Your task to perform on an android device: Show me popular games on the Play Store Image 0: 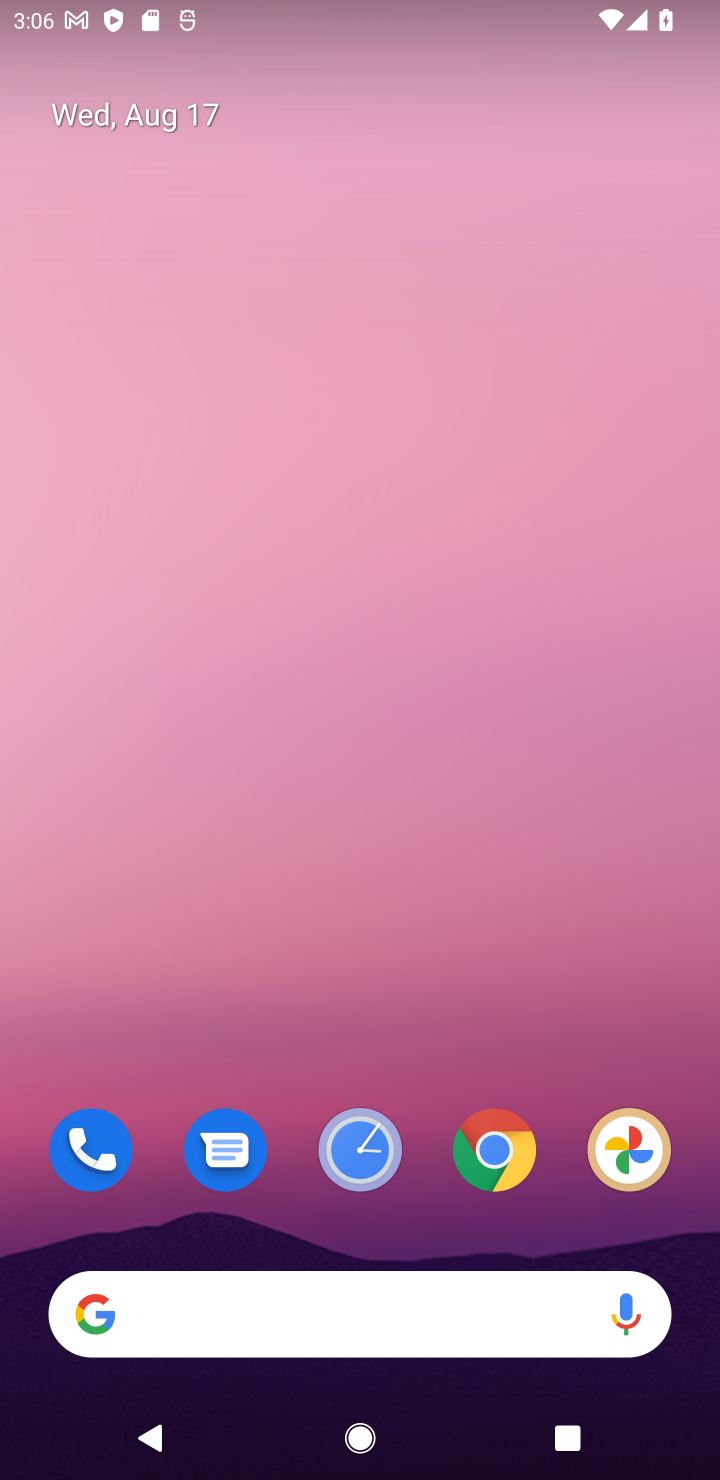
Step 0: drag from (555, 1087) to (181, 83)
Your task to perform on an android device: Show me popular games on the Play Store Image 1: 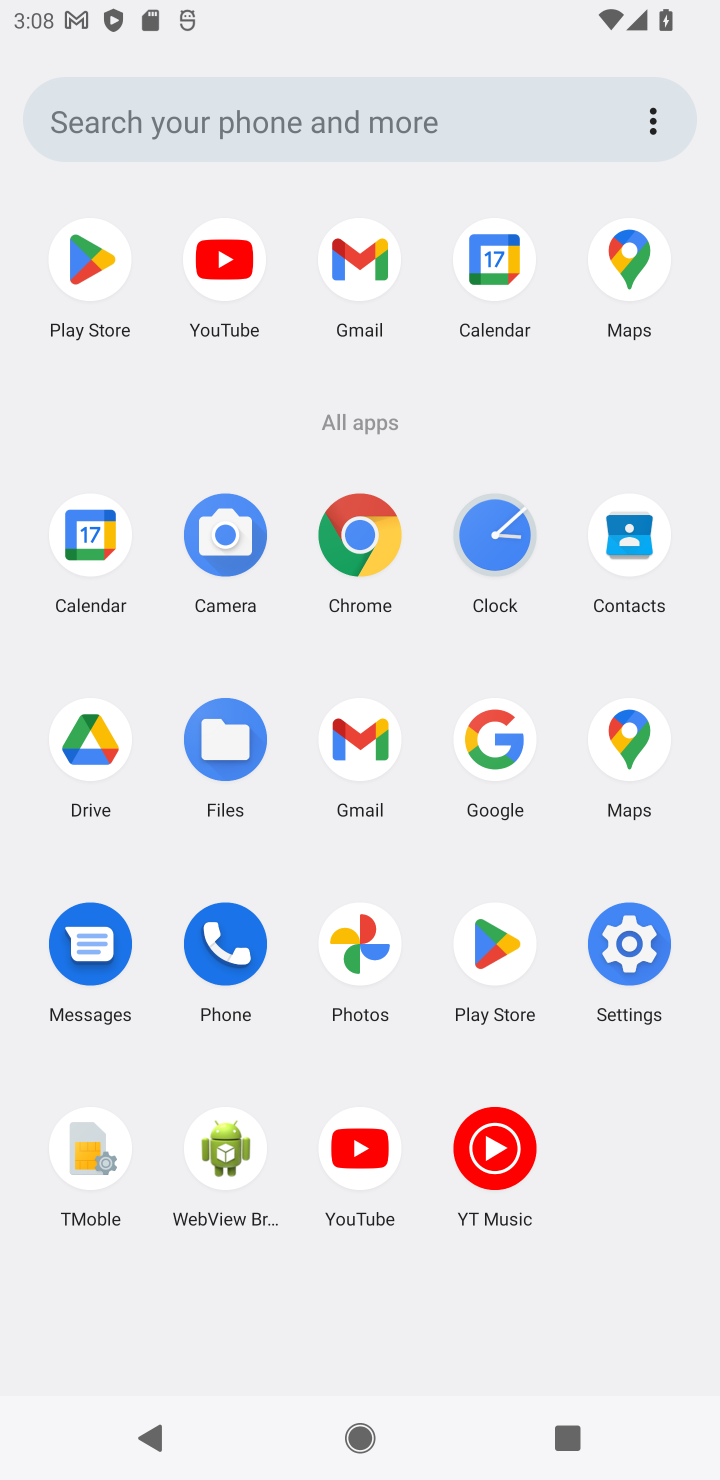
Step 1: click (521, 925)
Your task to perform on an android device: Show me popular games on the Play Store Image 2: 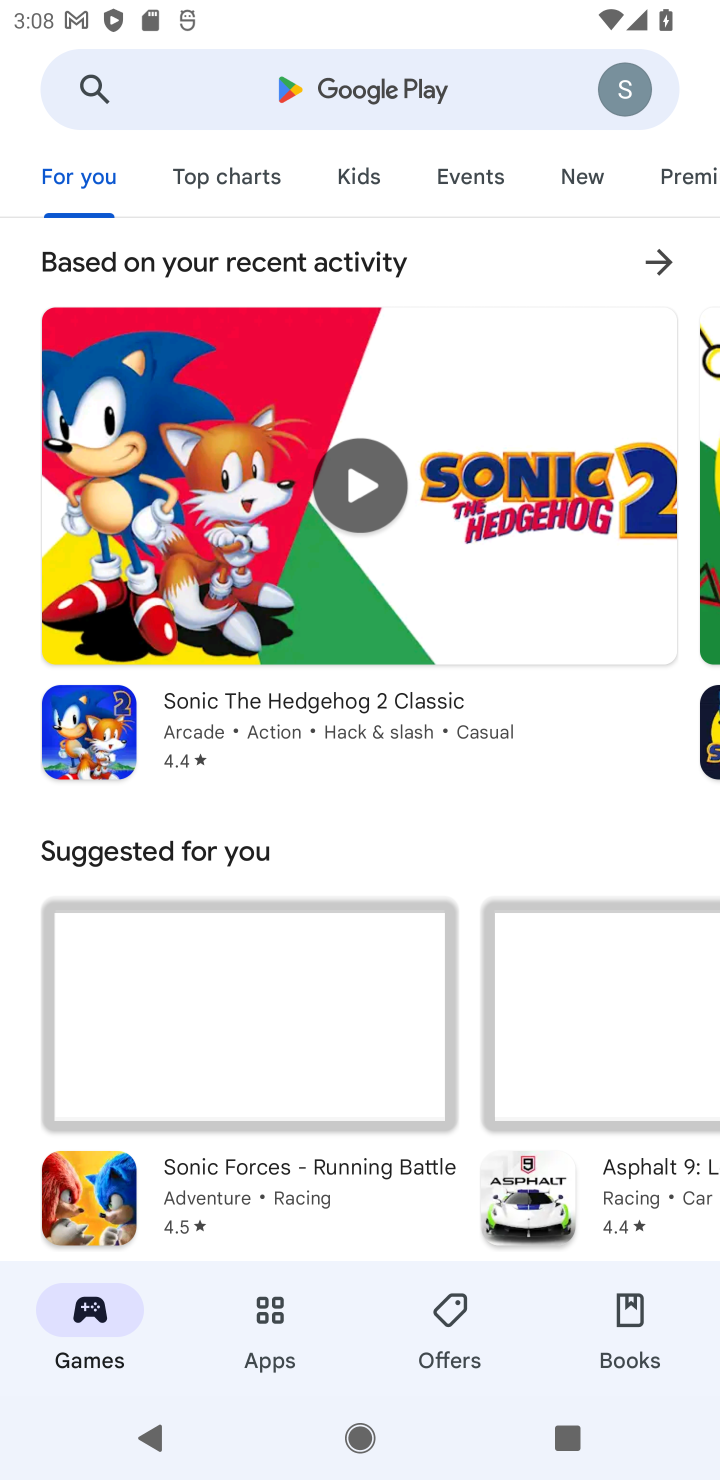
Step 2: task complete